Your task to perform on an android device: Go to Yahoo.com Image 0: 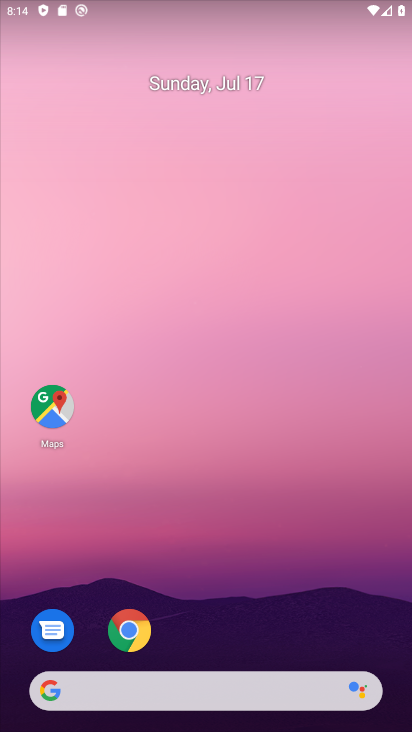
Step 0: drag from (359, 636) to (365, 85)
Your task to perform on an android device: Go to Yahoo.com Image 1: 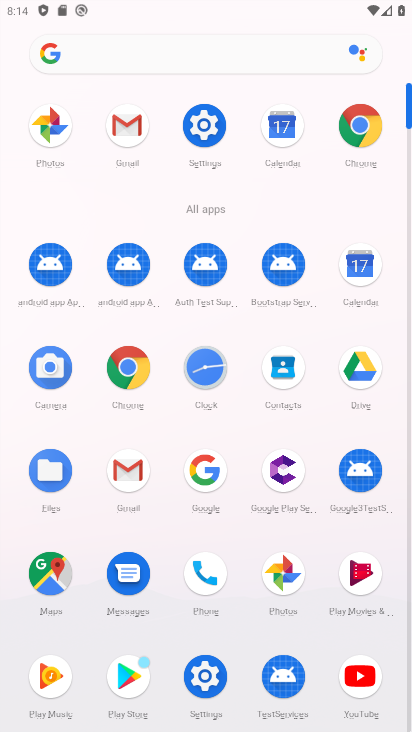
Step 1: click (139, 366)
Your task to perform on an android device: Go to Yahoo.com Image 2: 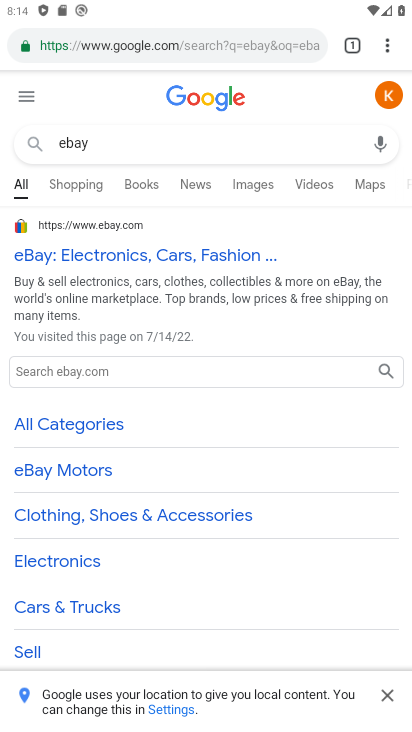
Step 2: click (220, 39)
Your task to perform on an android device: Go to Yahoo.com Image 3: 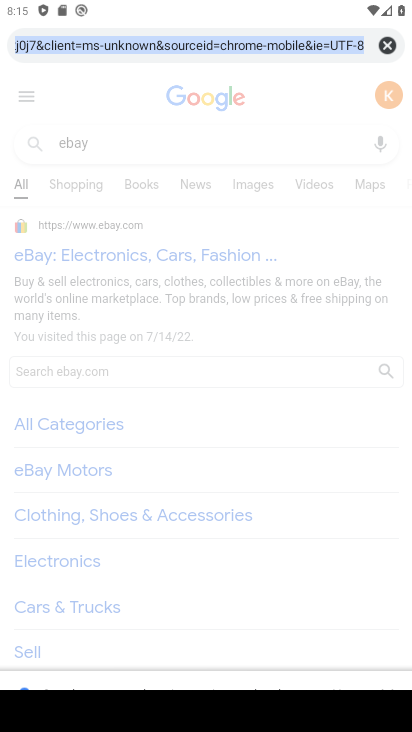
Step 3: type "yahoo.com"
Your task to perform on an android device: Go to Yahoo.com Image 4: 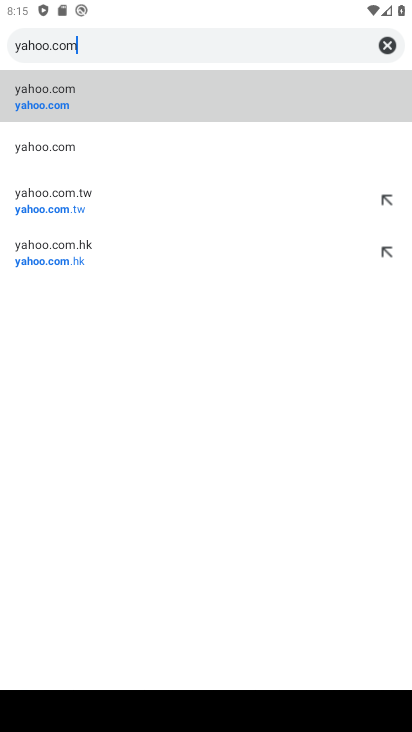
Step 4: click (235, 107)
Your task to perform on an android device: Go to Yahoo.com Image 5: 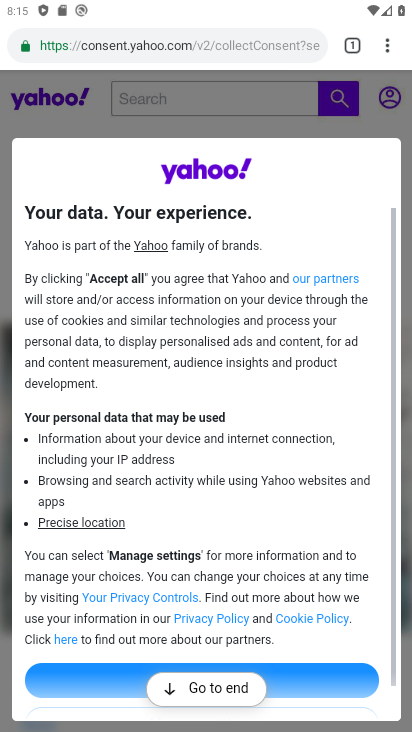
Step 5: task complete